Your task to perform on an android device: Go to calendar. Show me events next week Image 0: 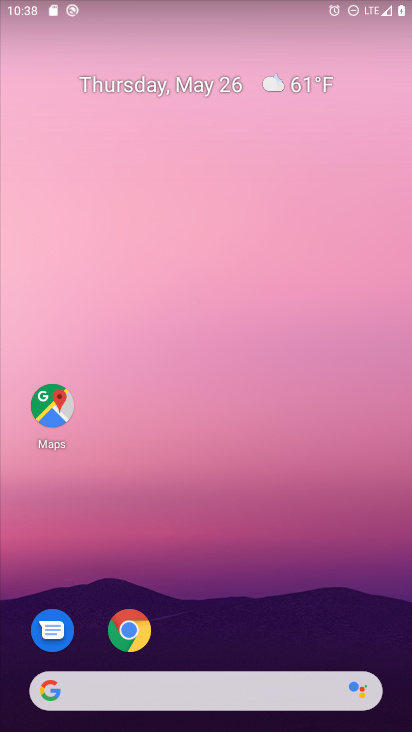
Step 0: drag from (224, 673) to (177, 16)
Your task to perform on an android device: Go to calendar. Show me events next week Image 1: 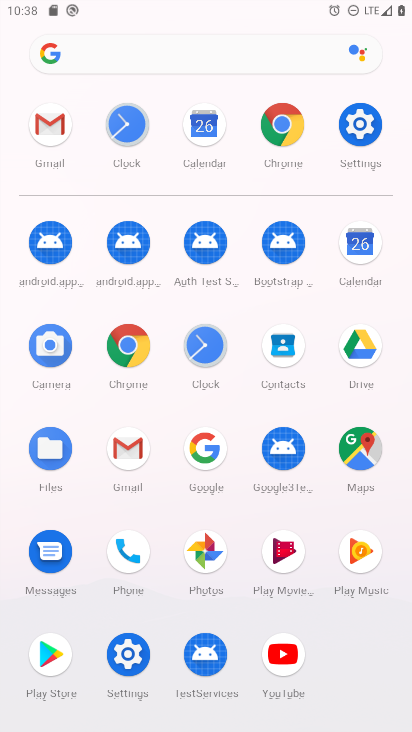
Step 1: click (352, 243)
Your task to perform on an android device: Go to calendar. Show me events next week Image 2: 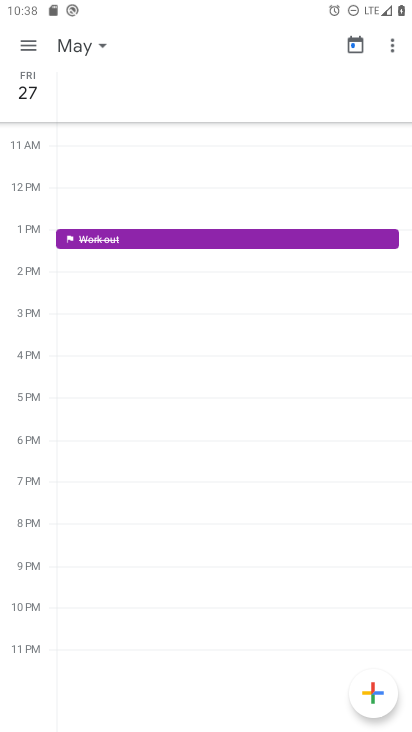
Step 2: click (23, 44)
Your task to perform on an android device: Go to calendar. Show me events next week Image 3: 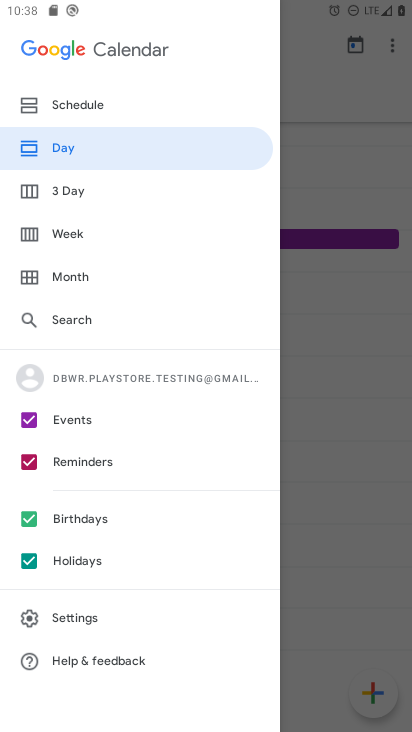
Step 3: click (65, 234)
Your task to perform on an android device: Go to calendar. Show me events next week Image 4: 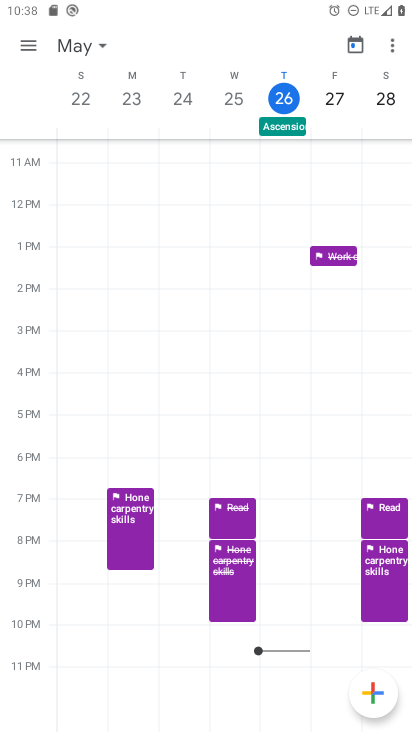
Step 4: task complete